Your task to perform on an android device: Open settings Image 0: 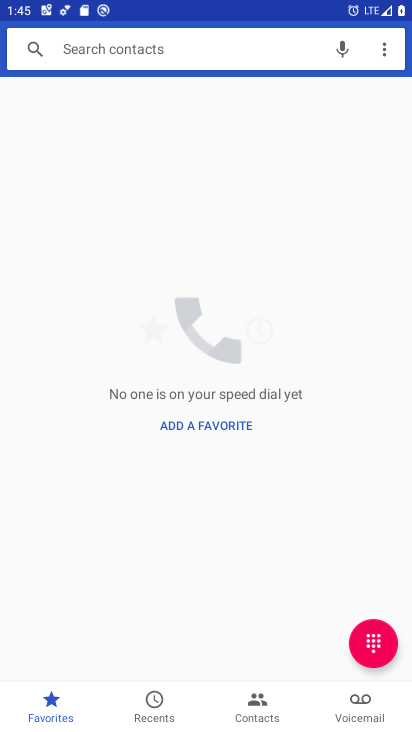
Step 0: press home button
Your task to perform on an android device: Open settings Image 1: 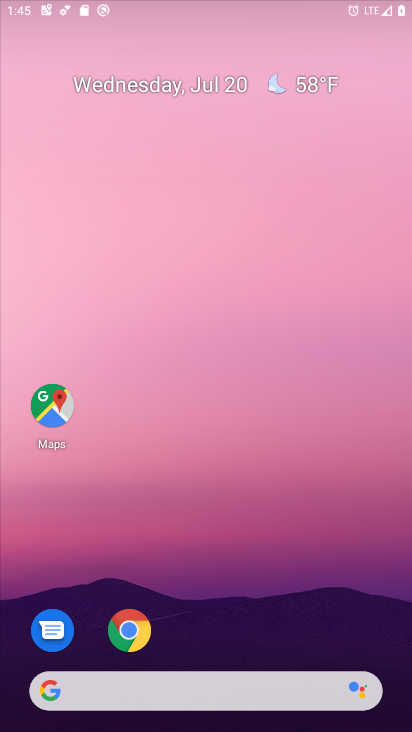
Step 1: drag from (192, 645) to (189, 199)
Your task to perform on an android device: Open settings Image 2: 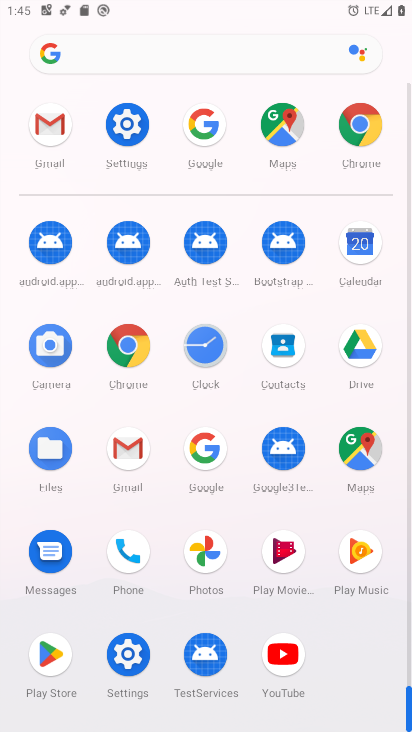
Step 2: click (129, 131)
Your task to perform on an android device: Open settings Image 3: 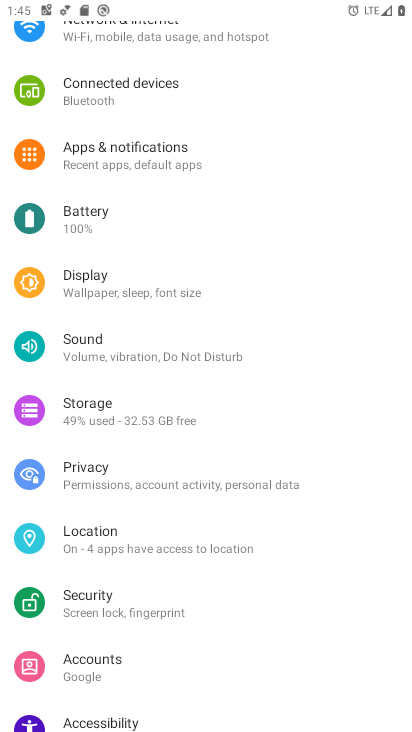
Step 3: task complete